Your task to perform on an android device: Search for sushi restaurants on Maps Image 0: 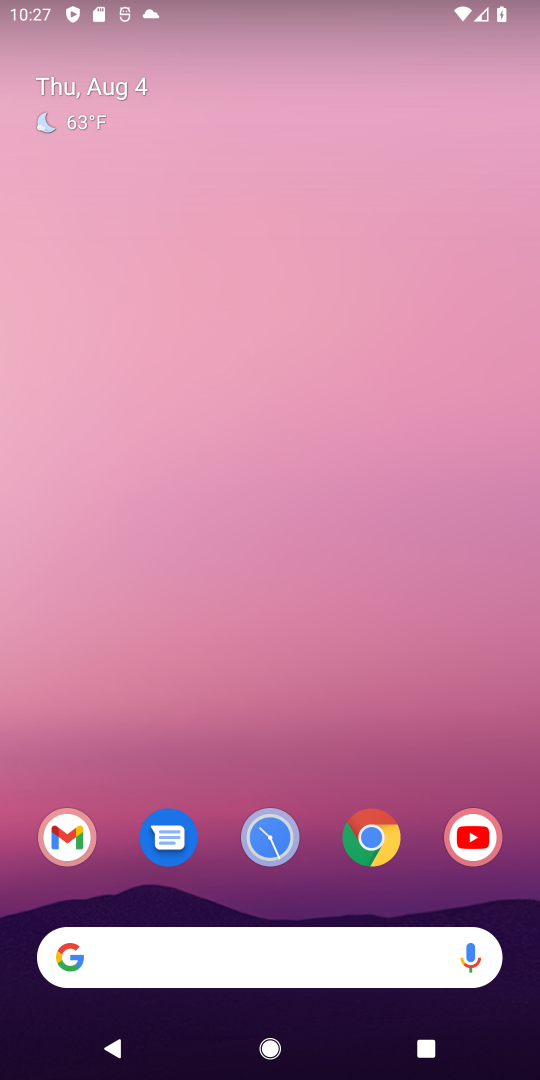
Step 0: drag from (344, 770) to (336, 158)
Your task to perform on an android device: Search for sushi restaurants on Maps Image 1: 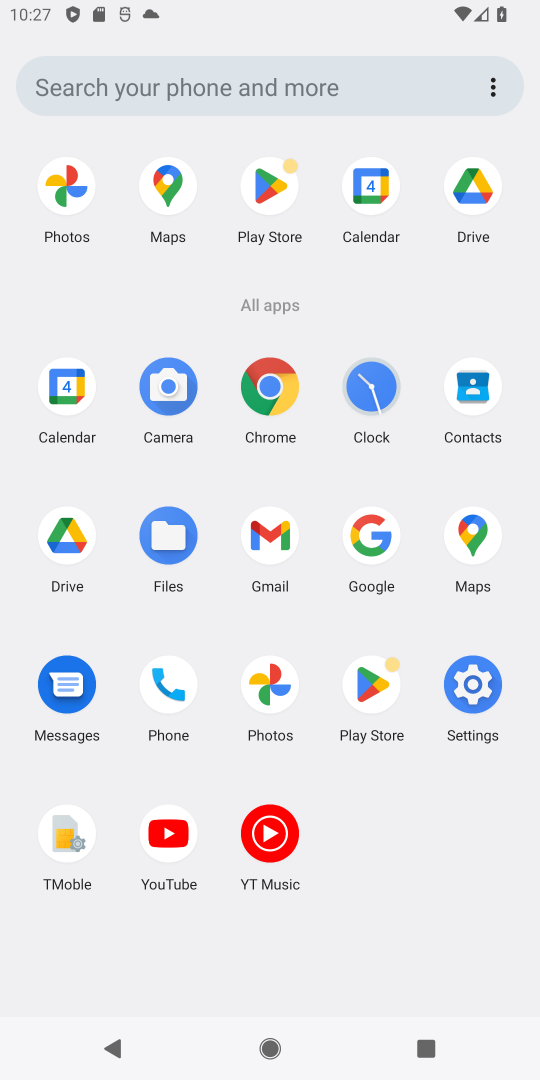
Step 1: click (470, 545)
Your task to perform on an android device: Search for sushi restaurants on Maps Image 2: 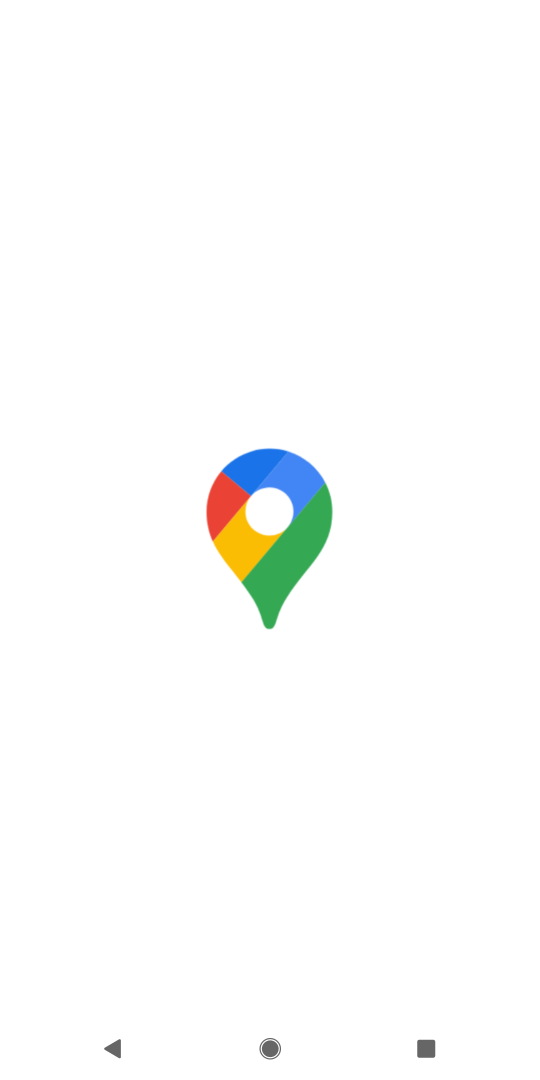
Step 2: task complete